Your task to perform on an android device: turn on the 24-hour format for clock Image 0: 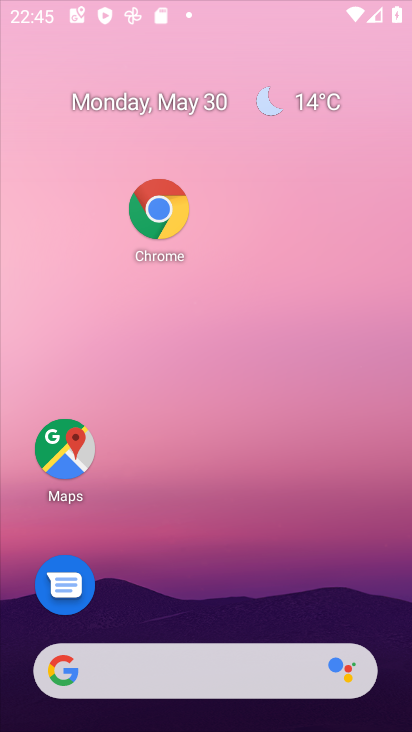
Step 0: click (391, 190)
Your task to perform on an android device: turn on the 24-hour format for clock Image 1: 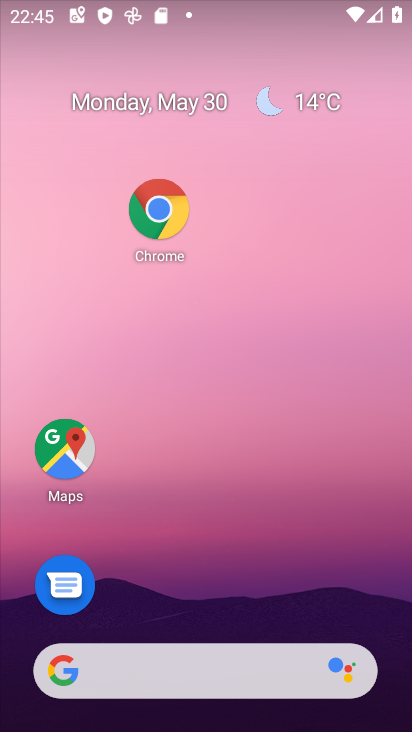
Step 1: drag from (208, 619) to (125, 11)
Your task to perform on an android device: turn on the 24-hour format for clock Image 2: 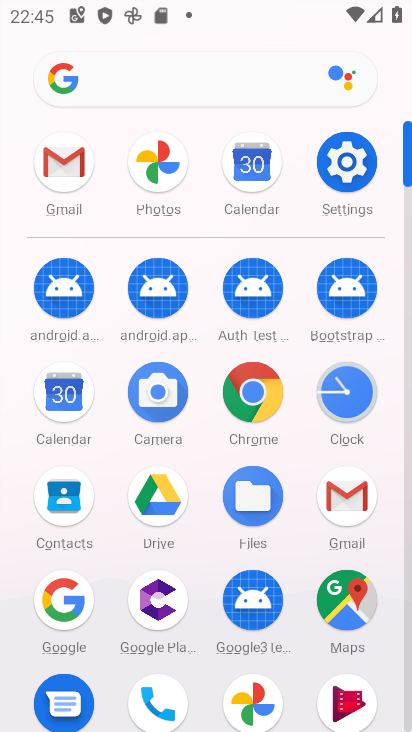
Step 2: click (349, 388)
Your task to perform on an android device: turn on the 24-hour format for clock Image 3: 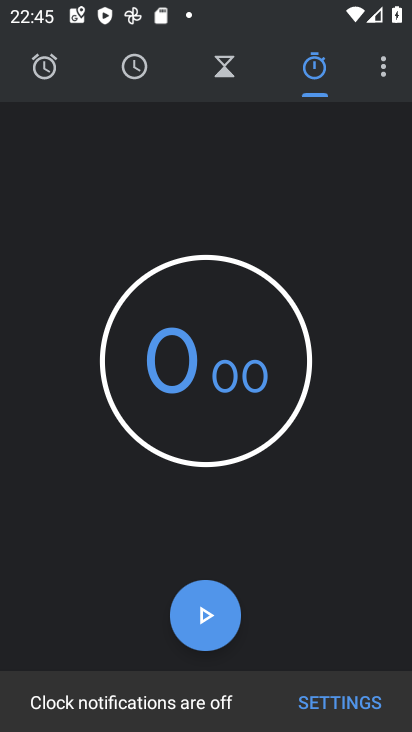
Step 3: click (392, 62)
Your task to perform on an android device: turn on the 24-hour format for clock Image 4: 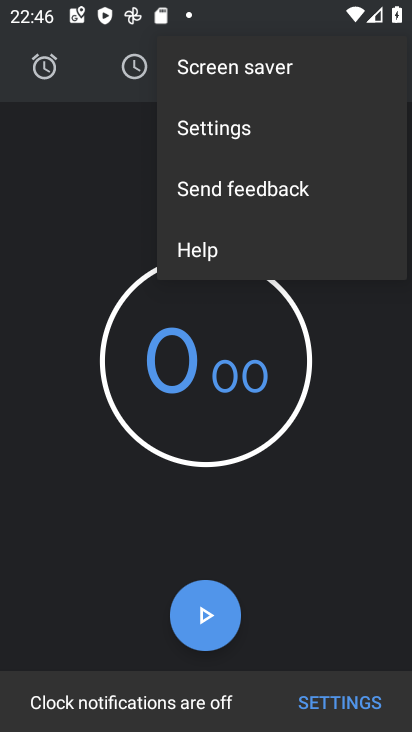
Step 4: click (284, 133)
Your task to perform on an android device: turn on the 24-hour format for clock Image 5: 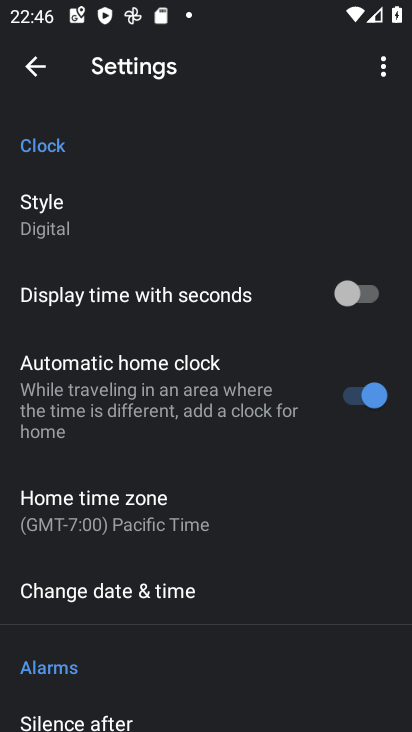
Step 5: click (189, 595)
Your task to perform on an android device: turn on the 24-hour format for clock Image 6: 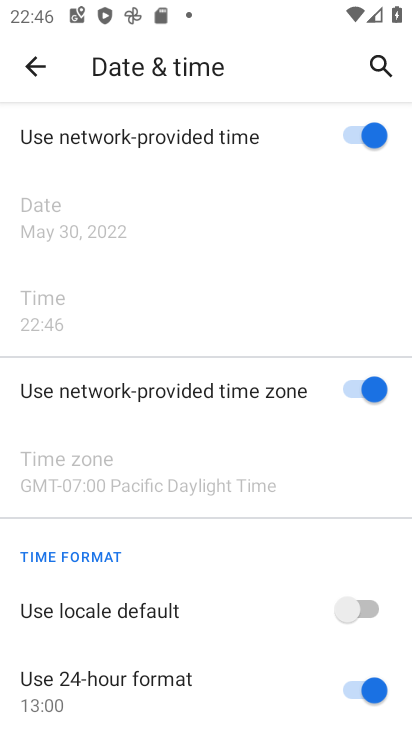
Step 6: drag from (193, 651) to (269, 228)
Your task to perform on an android device: turn on the 24-hour format for clock Image 7: 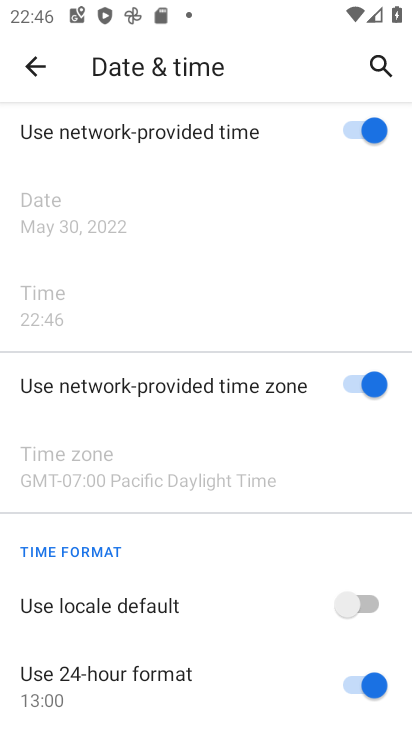
Step 7: click (365, 682)
Your task to perform on an android device: turn on the 24-hour format for clock Image 8: 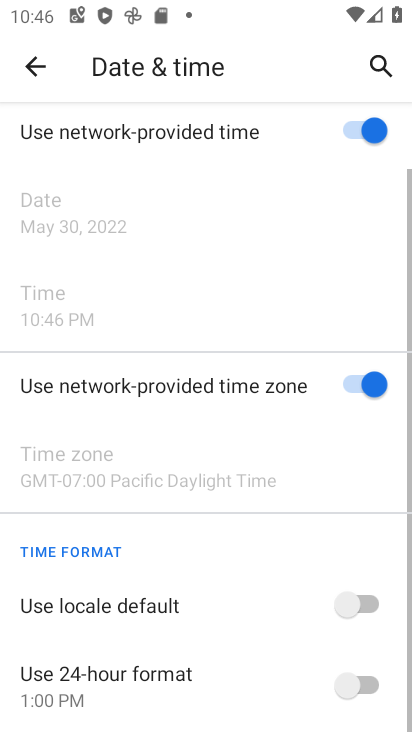
Step 8: click (358, 691)
Your task to perform on an android device: turn on the 24-hour format for clock Image 9: 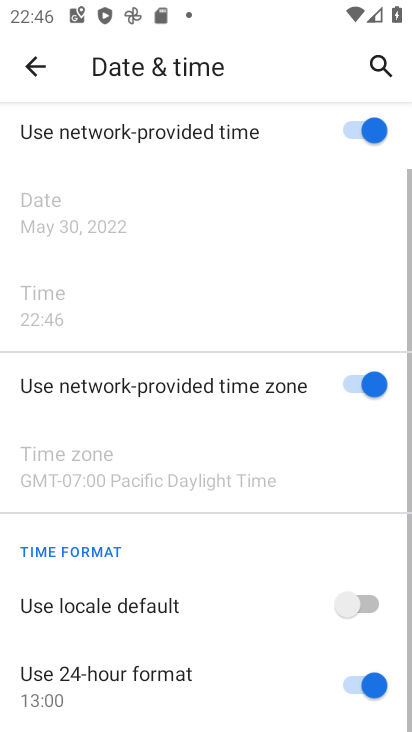
Step 9: task complete